Your task to perform on an android device: Is it going to rain this weekend? Image 0: 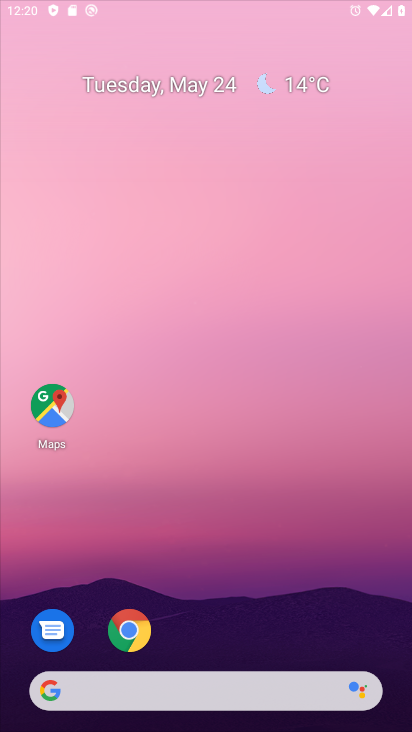
Step 0: drag from (378, 47) to (341, 161)
Your task to perform on an android device: Is it going to rain this weekend? Image 1: 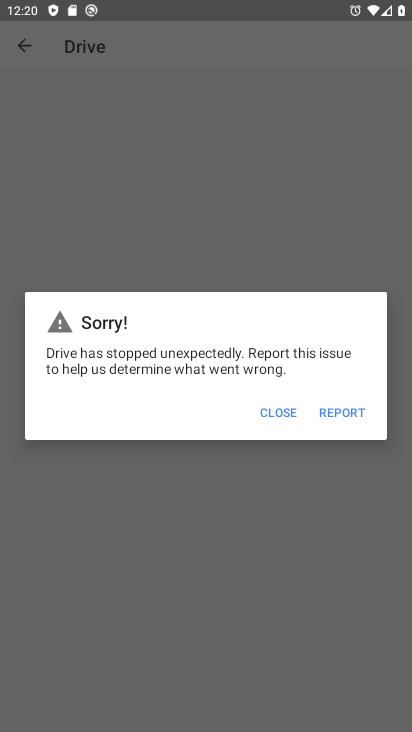
Step 1: press home button
Your task to perform on an android device: Is it going to rain this weekend? Image 2: 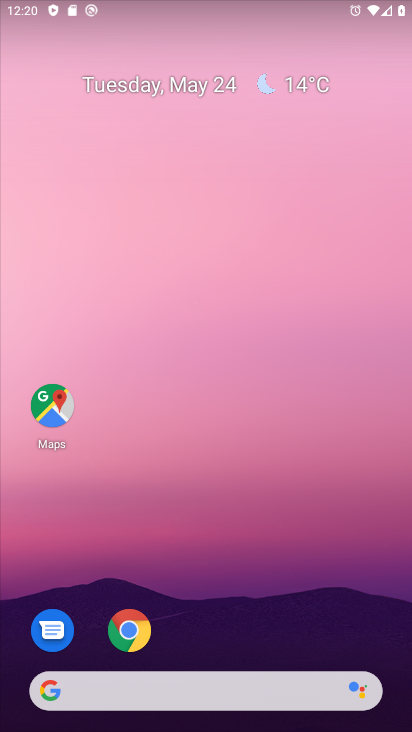
Step 2: drag from (270, 651) to (275, 231)
Your task to perform on an android device: Is it going to rain this weekend? Image 3: 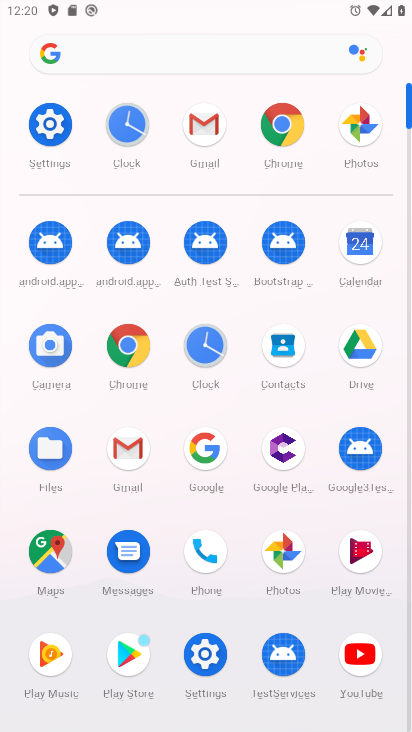
Step 3: click (132, 351)
Your task to perform on an android device: Is it going to rain this weekend? Image 4: 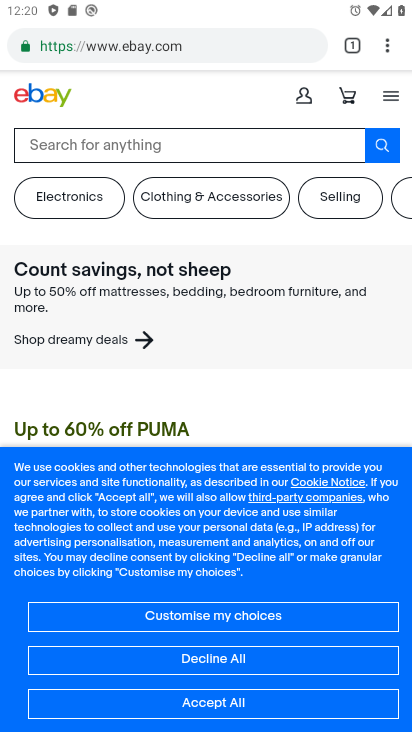
Step 4: click (136, 53)
Your task to perform on an android device: Is it going to rain this weekend? Image 5: 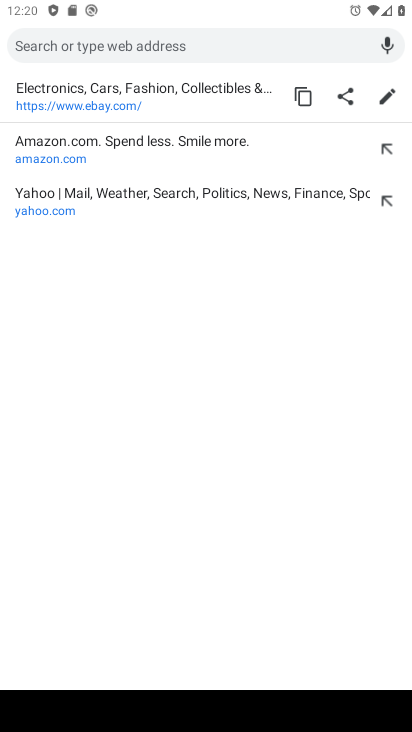
Step 5: type "is it going to rain this weekend "
Your task to perform on an android device: Is it going to rain this weekend? Image 6: 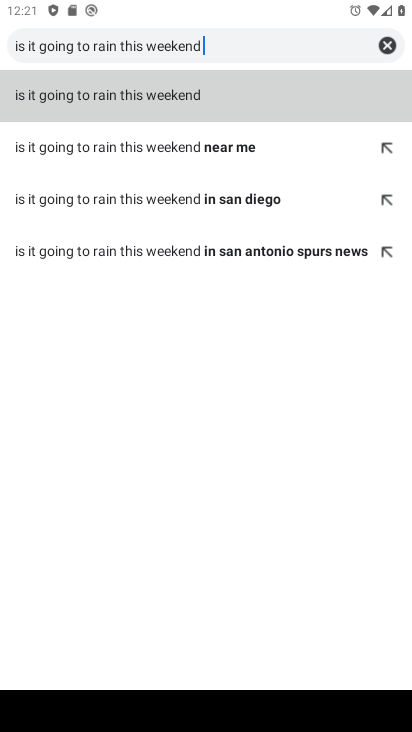
Step 6: click (190, 96)
Your task to perform on an android device: Is it going to rain this weekend? Image 7: 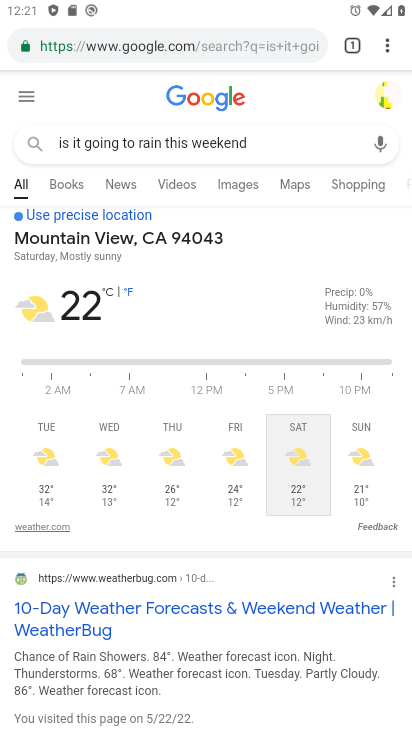
Step 7: task complete